Your task to perform on an android device: Open settings Image 0: 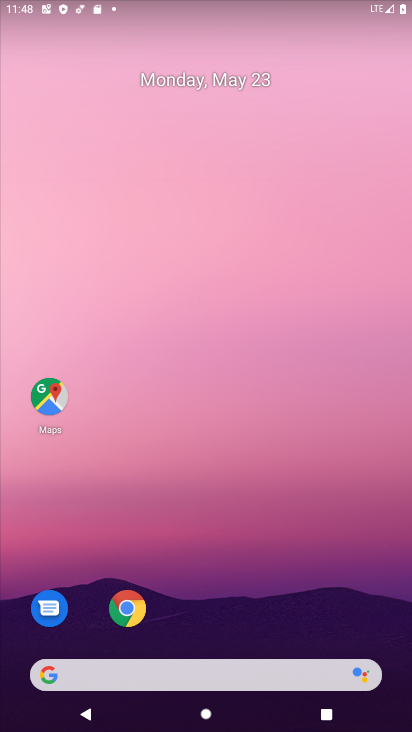
Step 0: drag from (222, 642) to (213, 0)
Your task to perform on an android device: Open settings Image 1: 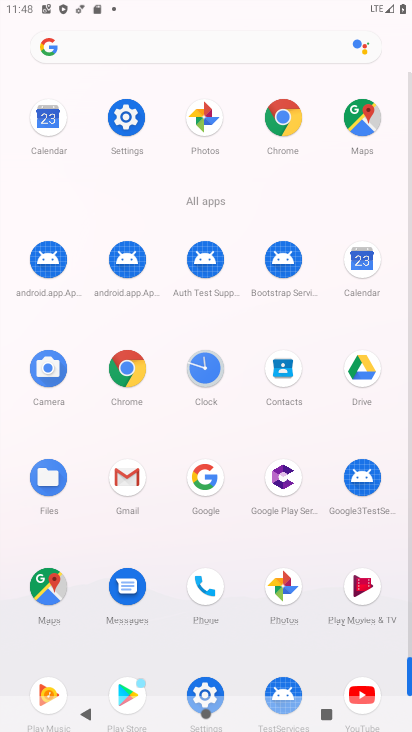
Step 1: click (125, 113)
Your task to perform on an android device: Open settings Image 2: 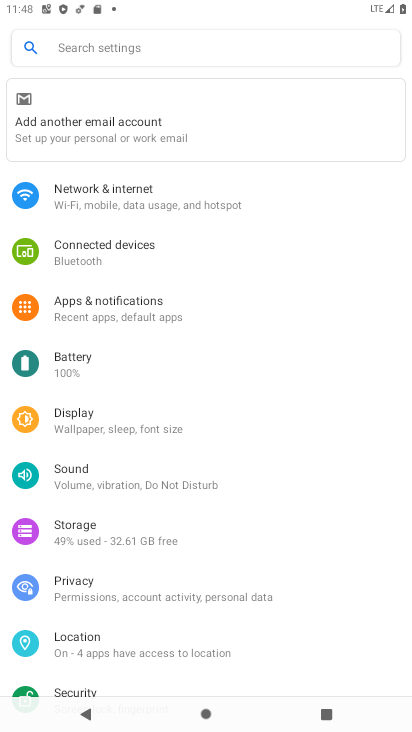
Step 2: task complete